Your task to perform on an android device: Go to eBay Image 0: 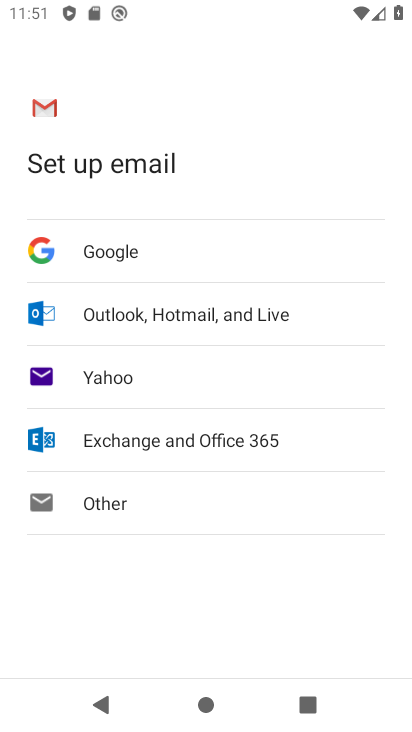
Step 0: press home button
Your task to perform on an android device: Go to eBay Image 1: 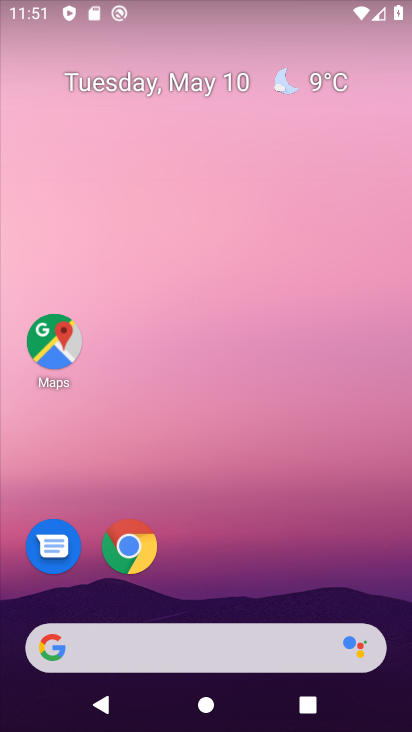
Step 1: click (210, 648)
Your task to perform on an android device: Go to eBay Image 2: 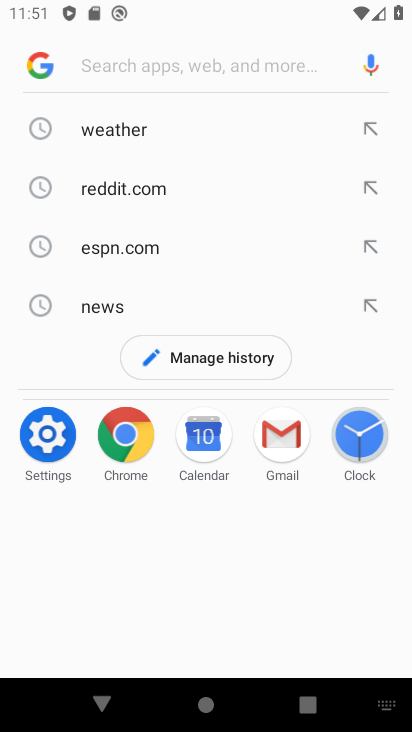
Step 2: type "eBay"
Your task to perform on an android device: Go to eBay Image 3: 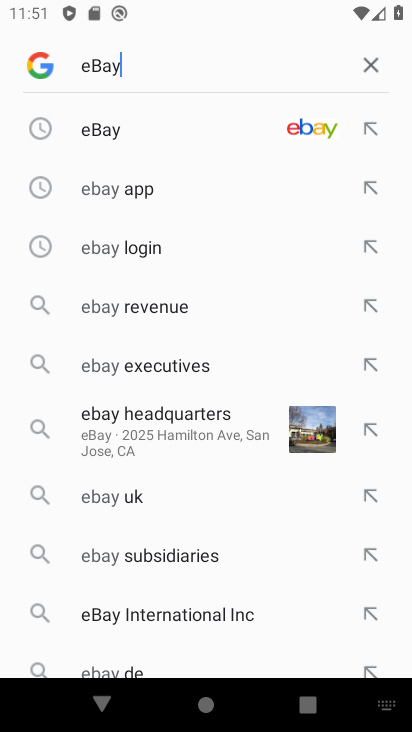
Step 3: click (137, 132)
Your task to perform on an android device: Go to eBay Image 4: 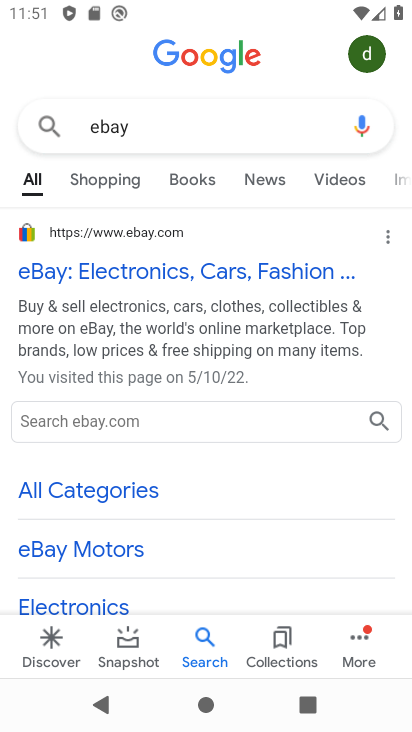
Step 4: click (88, 273)
Your task to perform on an android device: Go to eBay Image 5: 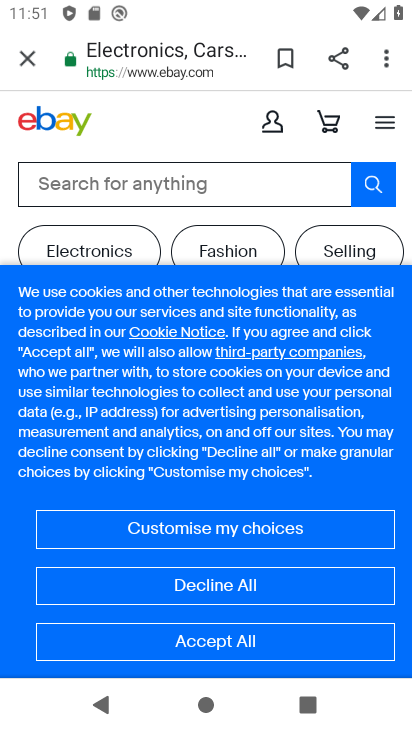
Step 5: task complete